Your task to perform on an android device: turn off notifications in google photos Image 0: 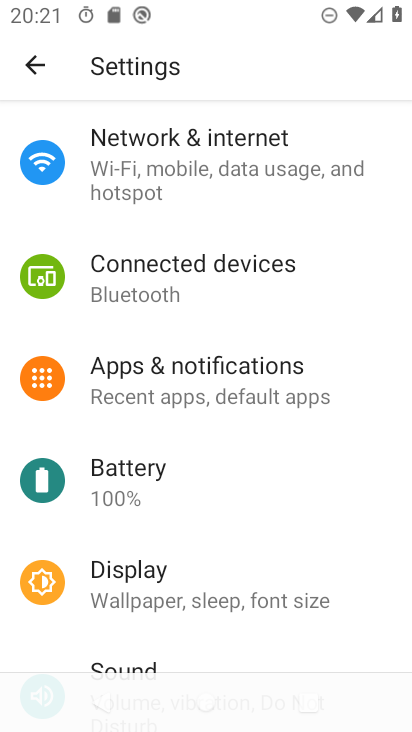
Step 0: press home button
Your task to perform on an android device: turn off notifications in google photos Image 1: 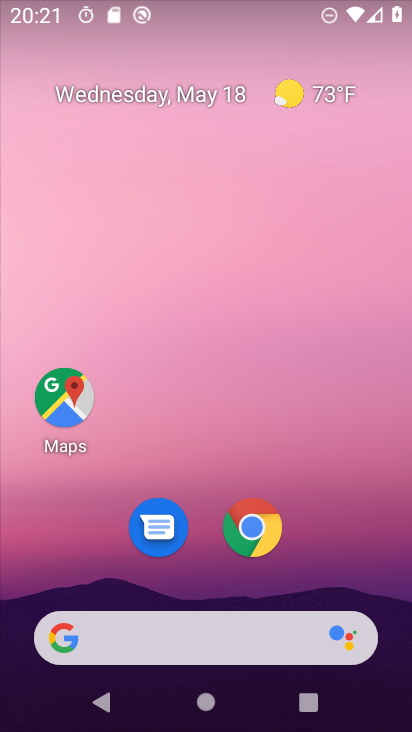
Step 1: drag from (361, 422) to (361, 296)
Your task to perform on an android device: turn off notifications in google photos Image 2: 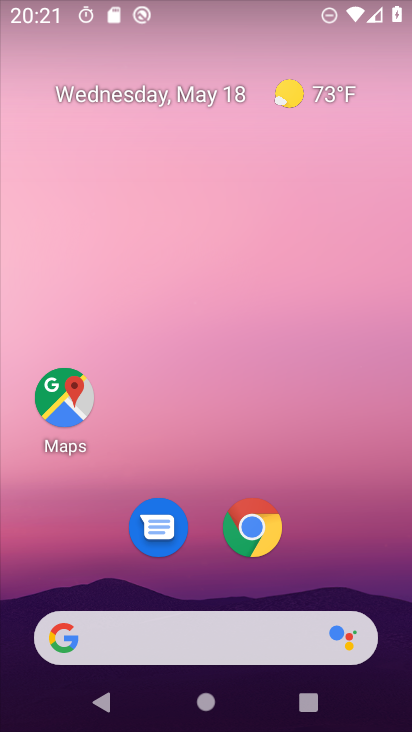
Step 2: drag from (319, 594) to (217, 6)
Your task to perform on an android device: turn off notifications in google photos Image 3: 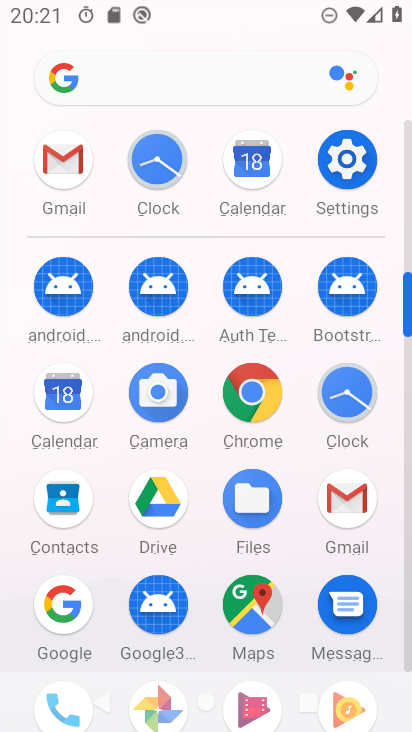
Step 3: drag from (407, 275) to (393, 176)
Your task to perform on an android device: turn off notifications in google photos Image 4: 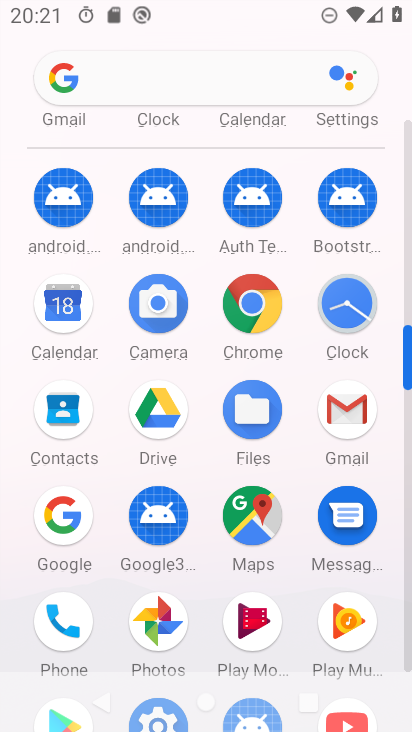
Step 4: click (168, 607)
Your task to perform on an android device: turn off notifications in google photos Image 5: 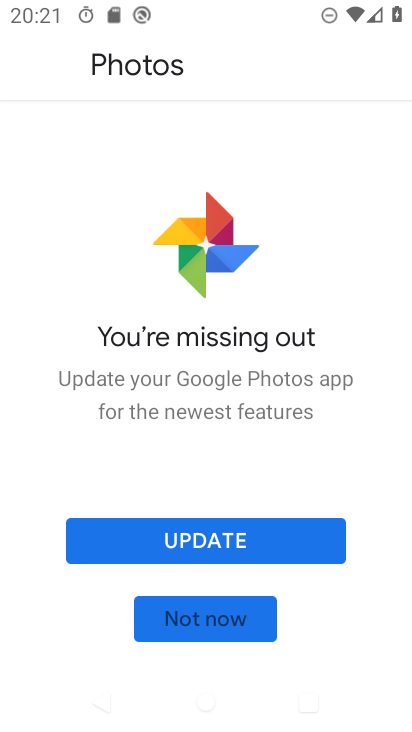
Step 5: click (286, 419)
Your task to perform on an android device: turn off notifications in google photos Image 6: 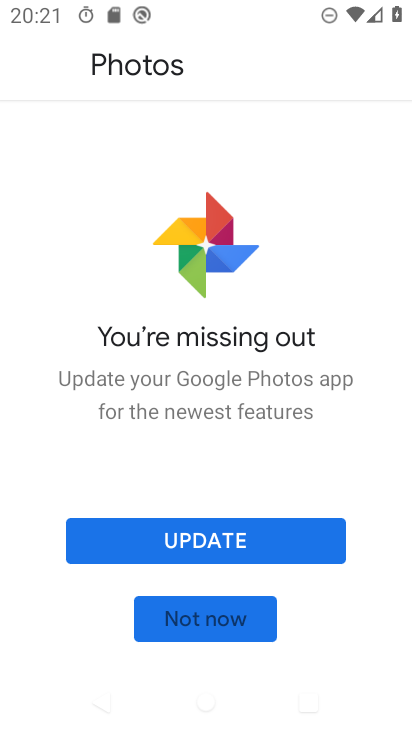
Step 6: click (269, 533)
Your task to perform on an android device: turn off notifications in google photos Image 7: 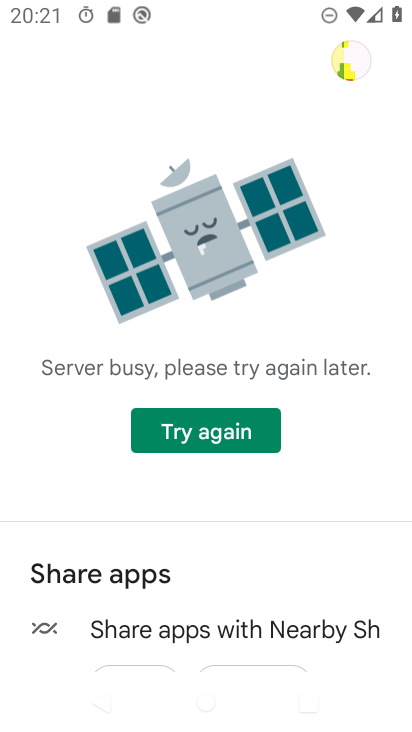
Step 7: task complete